Your task to perform on an android device: Turn on the flashlight Image 0: 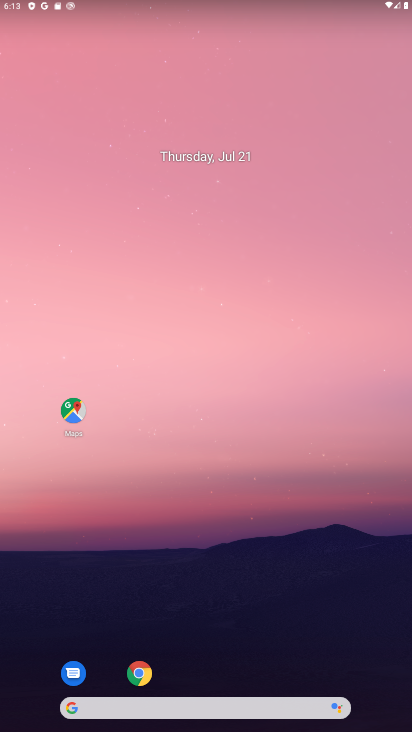
Step 0: drag from (169, 476) to (214, 14)
Your task to perform on an android device: Turn on the flashlight Image 1: 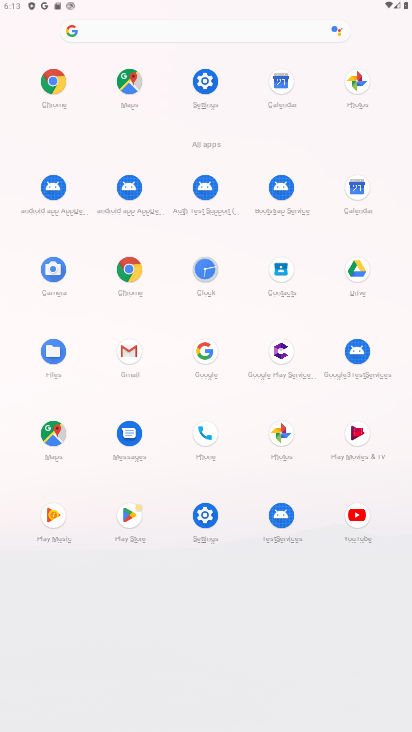
Step 1: task complete